Your task to perform on an android device: uninstall "Life360: Find Family & Friends" Image 0: 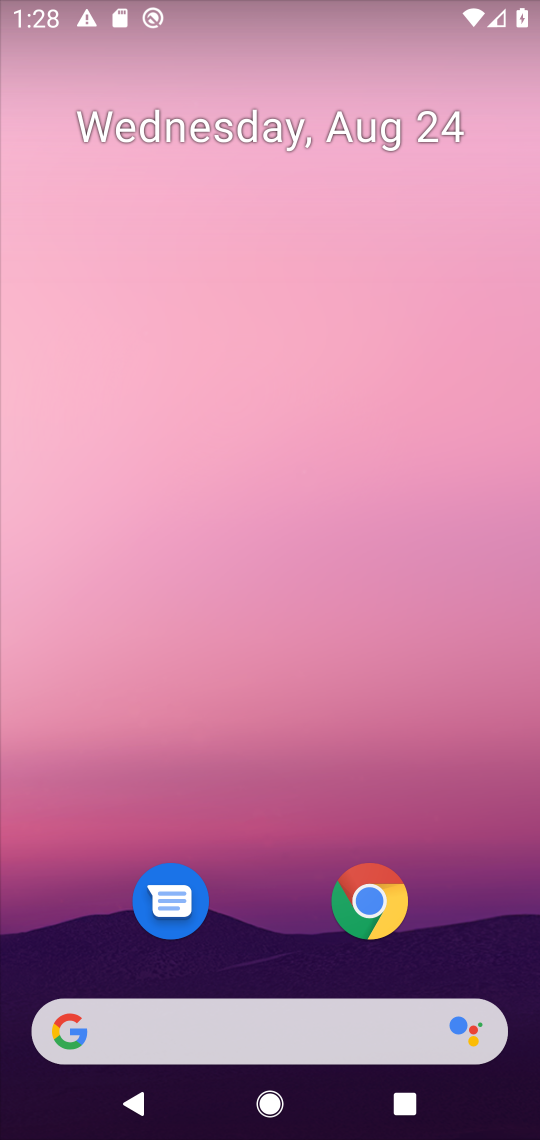
Step 0: drag from (249, 977) to (364, 106)
Your task to perform on an android device: uninstall "Life360: Find Family & Friends" Image 1: 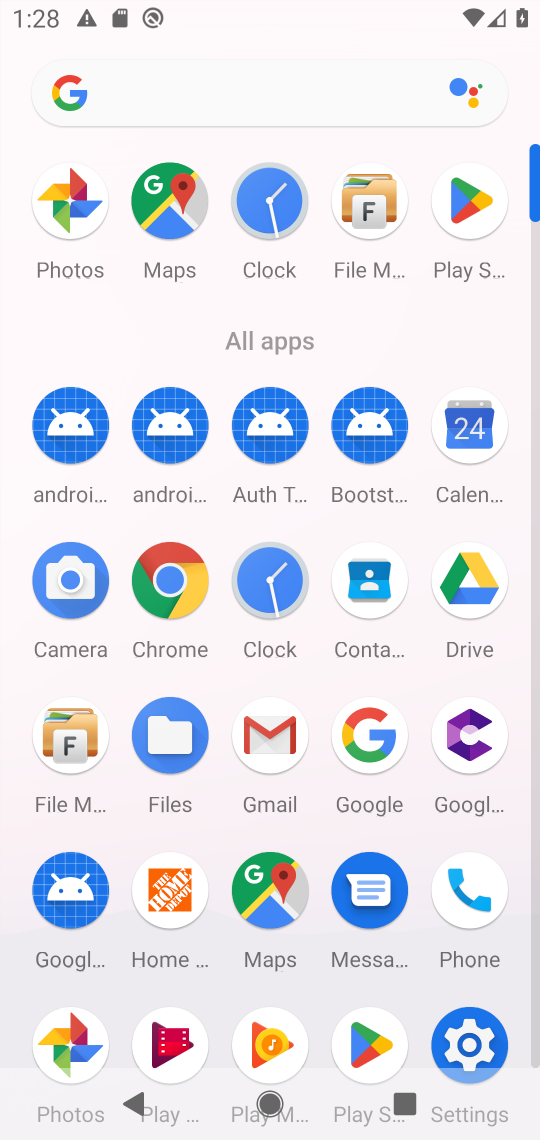
Step 1: click (469, 200)
Your task to perform on an android device: uninstall "Life360: Find Family & Friends" Image 2: 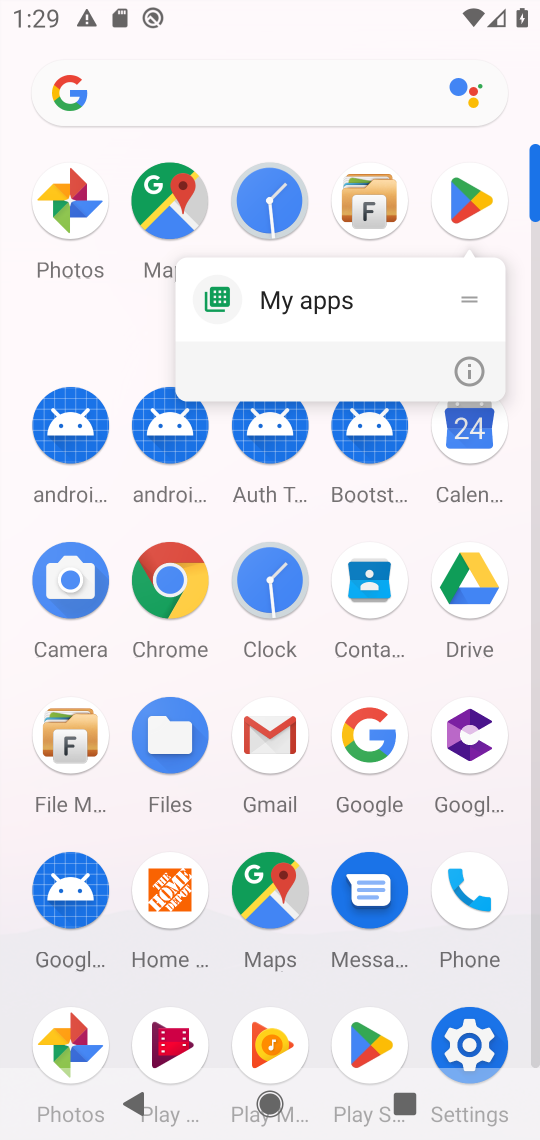
Step 2: click (481, 196)
Your task to perform on an android device: uninstall "Life360: Find Family & Friends" Image 3: 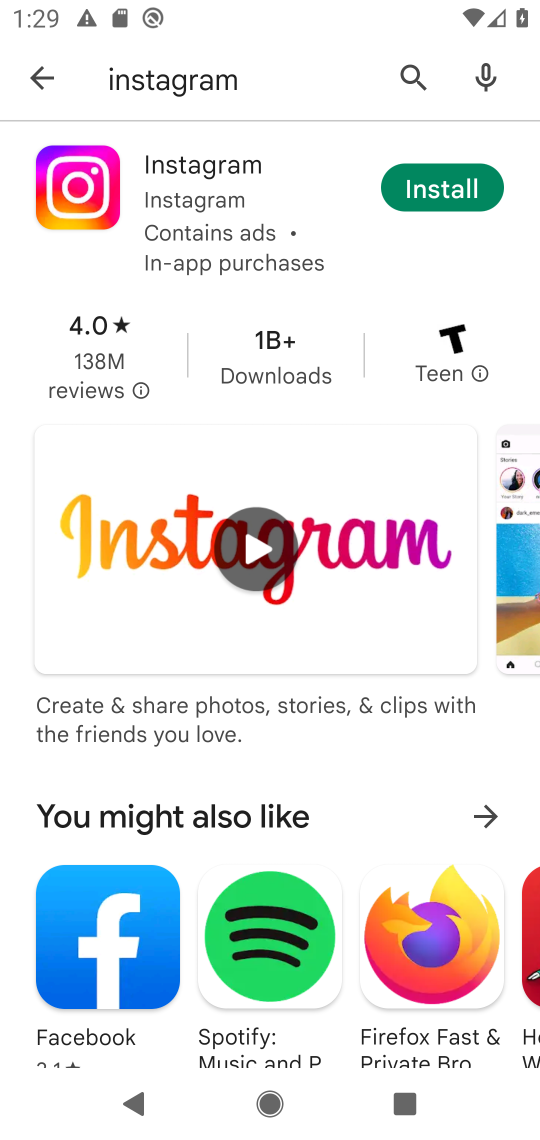
Step 3: click (398, 70)
Your task to perform on an android device: uninstall "Life360: Find Family & Friends" Image 4: 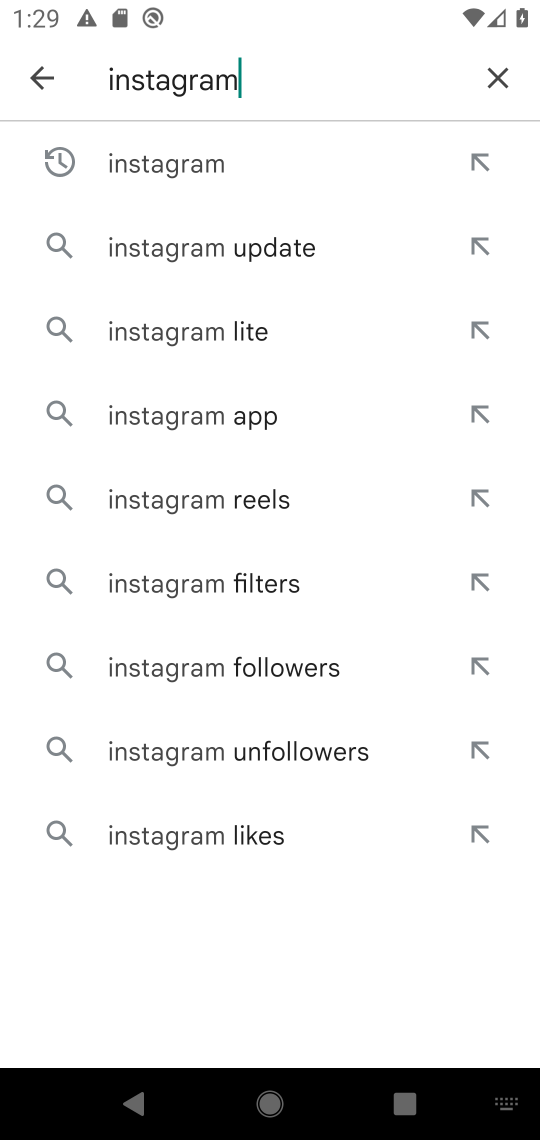
Step 4: click (489, 66)
Your task to perform on an android device: uninstall "Life360: Find Family & Friends" Image 5: 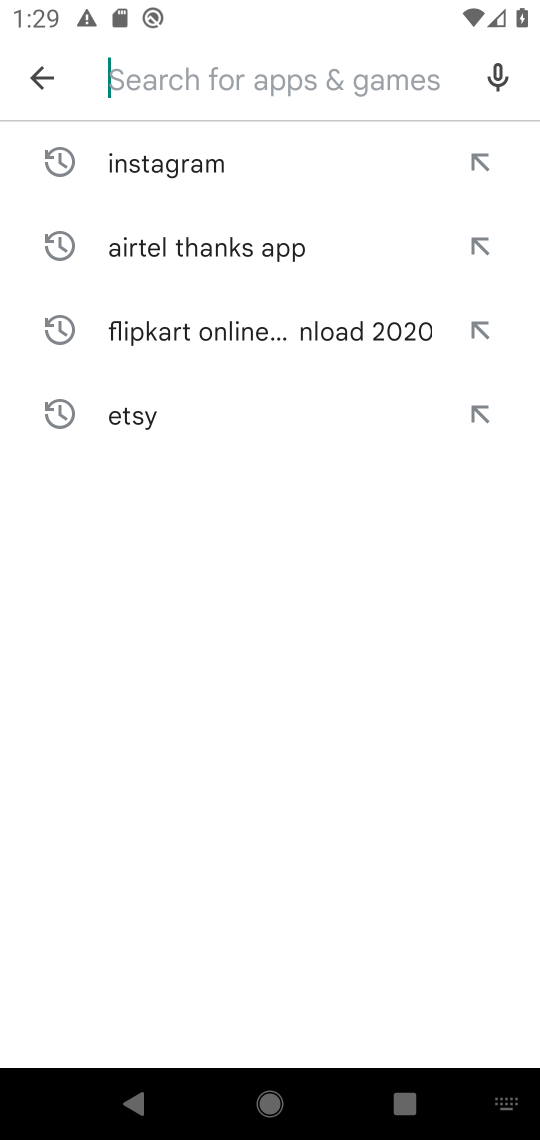
Step 5: click (216, 92)
Your task to perform on an android device: uninstall "Life360: Find Family & Friends" Image 6: 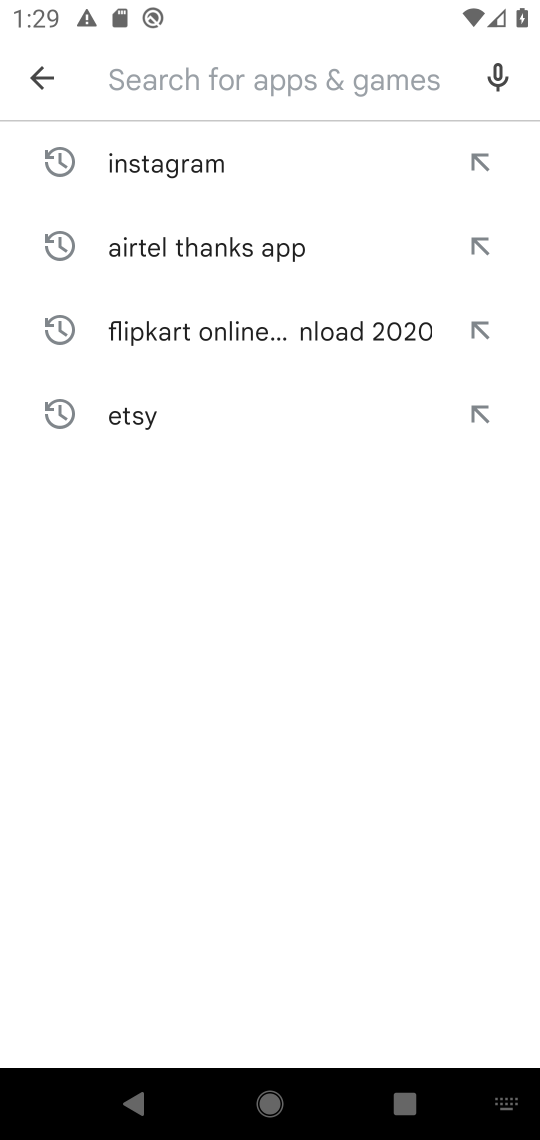
Step 6: type "Life360"
Your task to perform on an android device: uninstall "Life360: Find Family & Friends" Image 7: 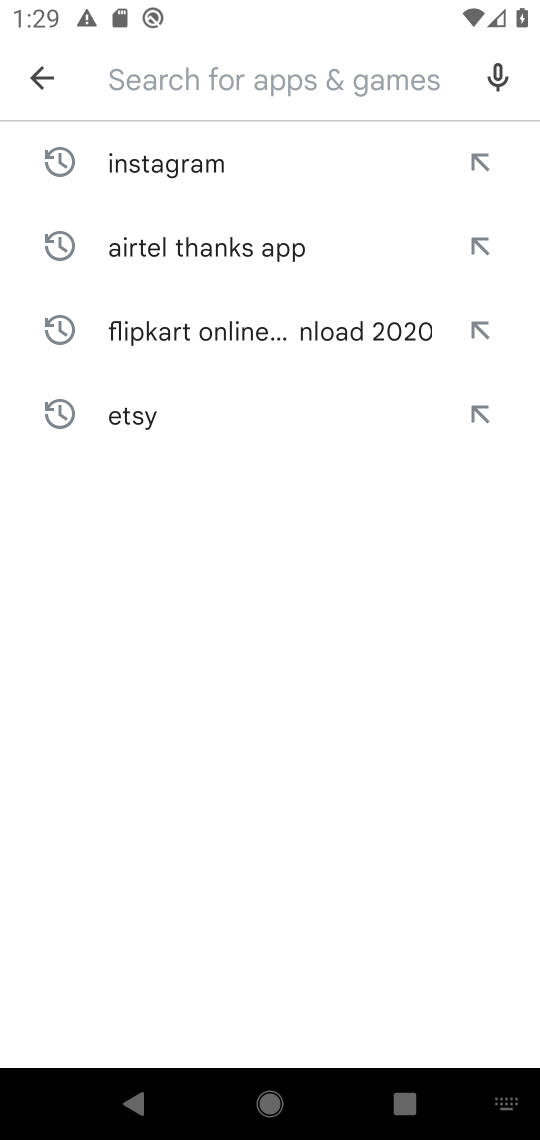
Step 7: click (296, 697)
Your task to perform on an android device: uninstall "Life360: Find Family & Friends" Image 8: 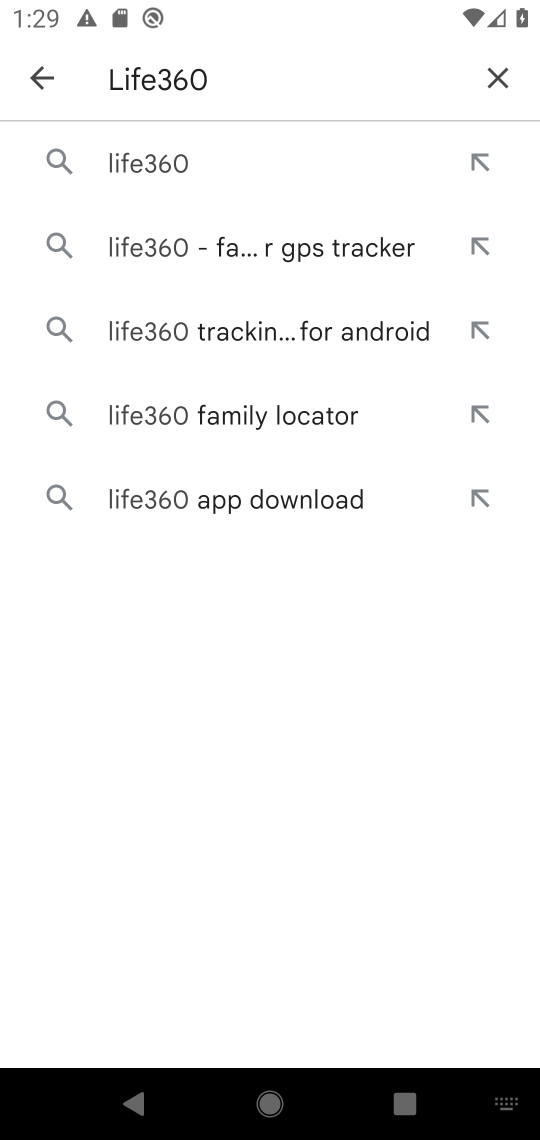
Step 8: click (146, 157)
Your task to perform on an android device: uninstall "Life360: Find Family & Friends" Image 9: 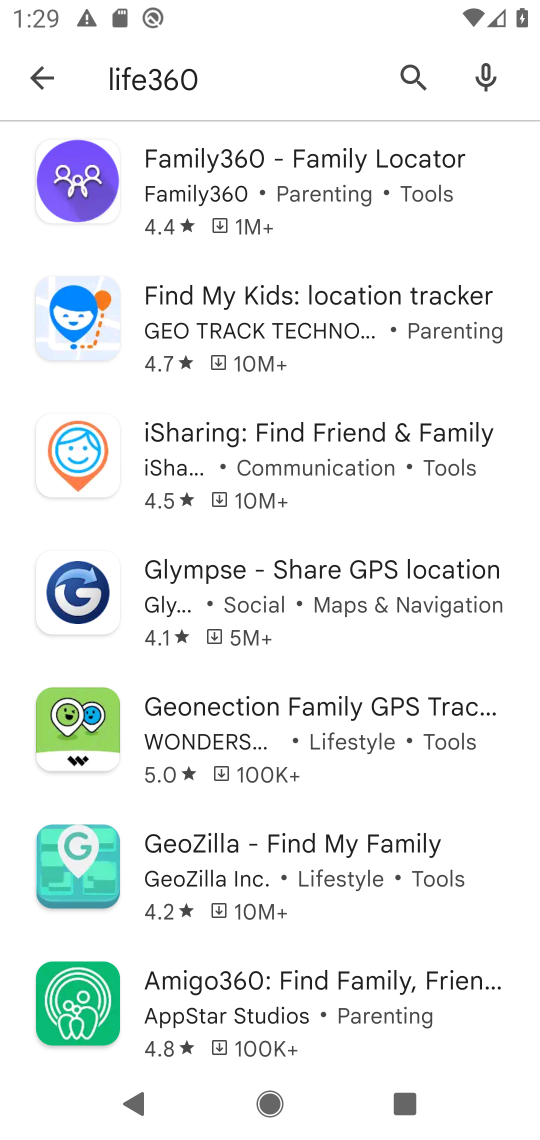
Step 9: task complete